Your task to perform on an android device: What's the weather going to be tomorrow? Image 0: 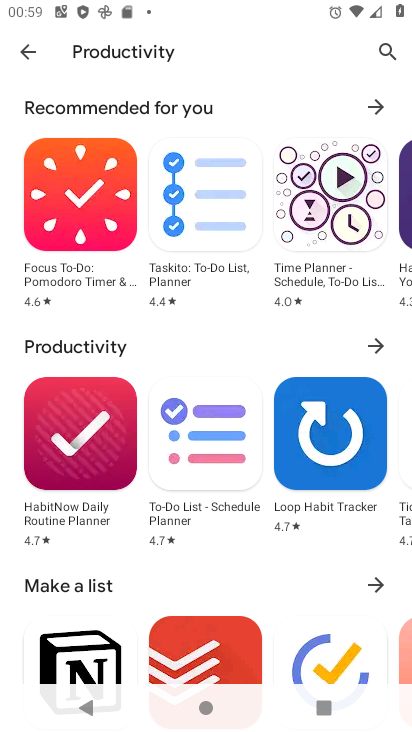
Step 0: press home button
Your task to perform on an android device: What's the weather going to be tomorrow? Image 1: 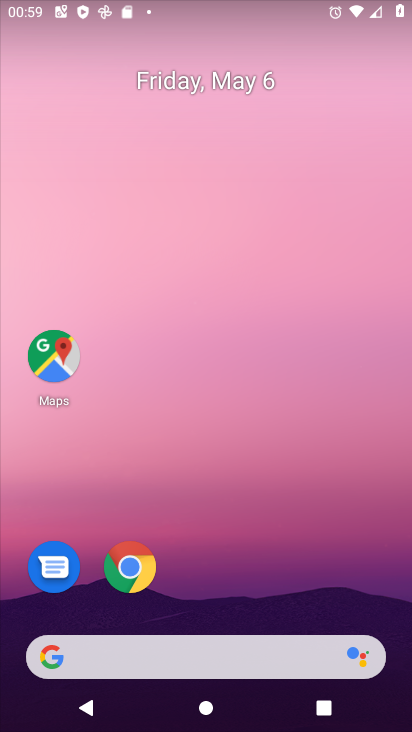
Step 1: drag from (202, 576) to (225, 89)
Your task to perform on an android device: What's the weather going to be tomorrow? Image 2: 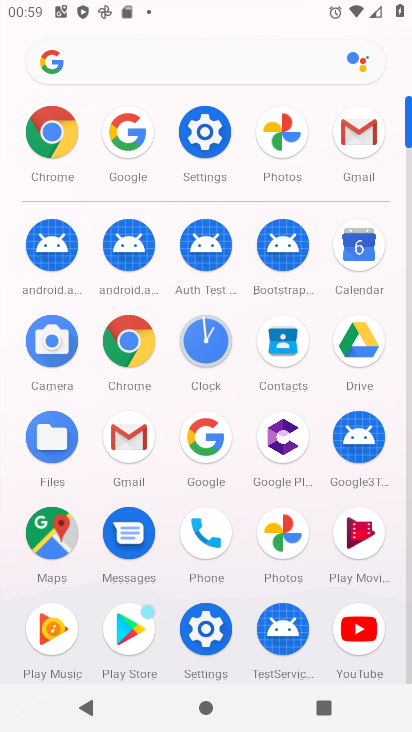
Step 2: click (207, 438)
Your task to perform on an android device: What's the weather going to be tomorrow? Image 3: 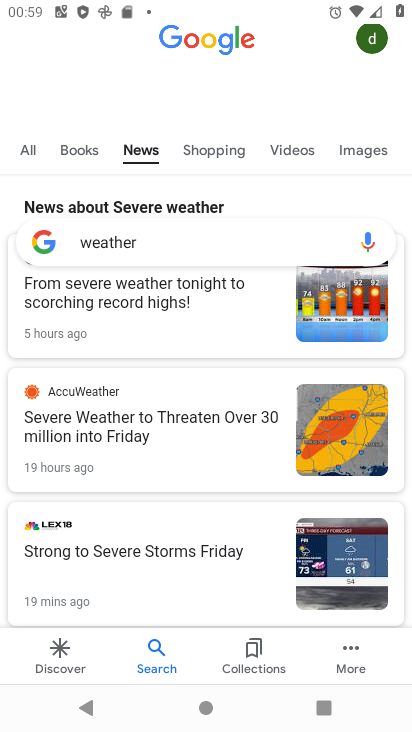
Step 3: click (36, 152)
Your task to perform on an android device: What's the weather going to be tomorrow? Image 4: 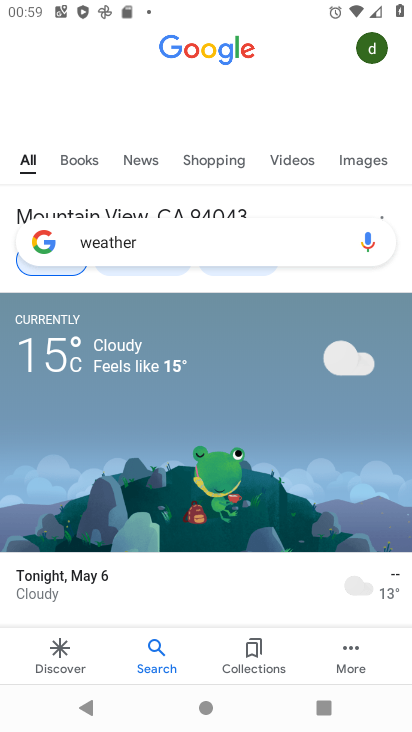
Step 4: click (215, 409)
Your task to perform on an android device: What's the weather going to be tomorrow? Image 5: 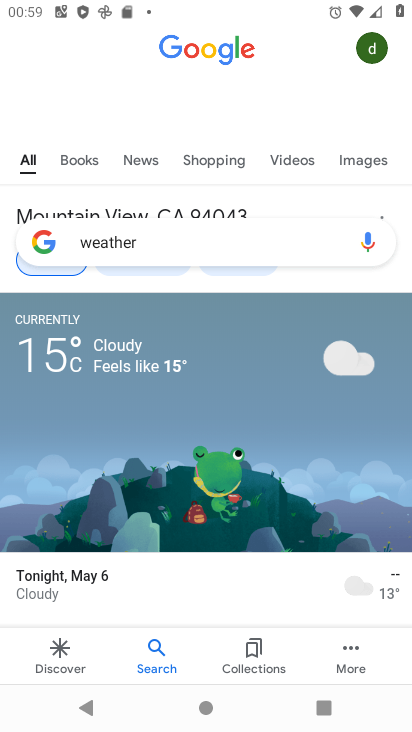
Step 5: click (246, 454)
Your task to perform on an android device: What's the weather going to be tomorrow? Image 6: 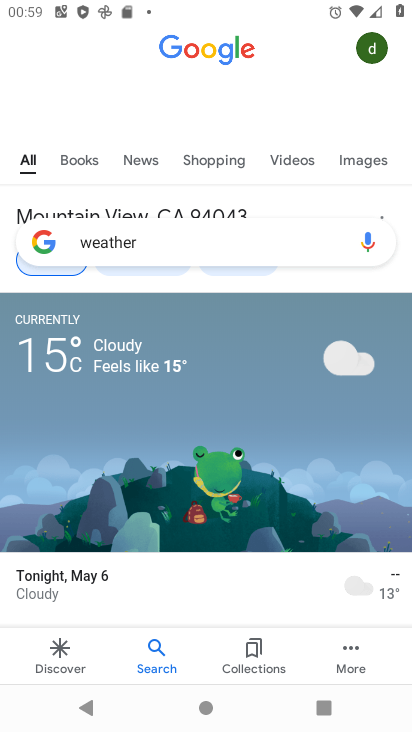
Step 6: drag from (196, 522) to (222, 359)
Your task to perform on an android device: What's the weather going to be tomorrow? Image 7: 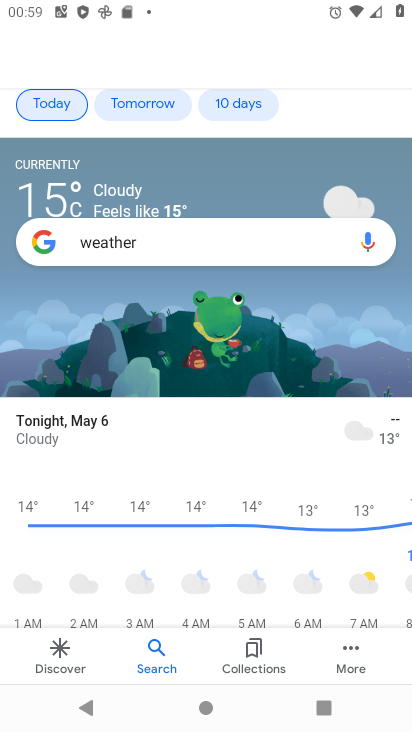
Step 7: click (156, 109)
Your task to perform on an android device: What's the weather going to be tomorrow? Image 8: 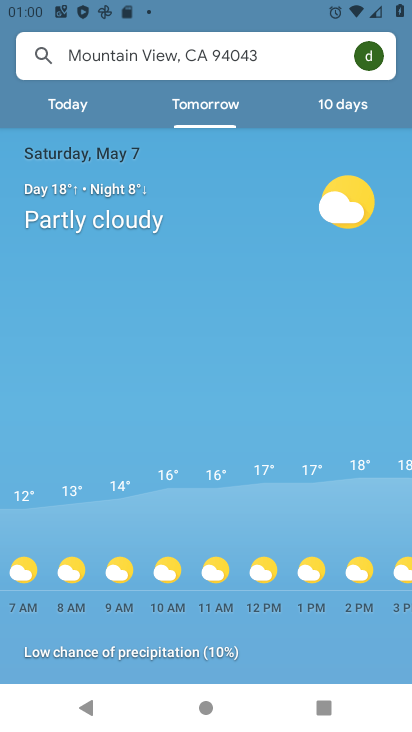
Step 8: task complete